Your task to perform on an android device: Go to display settings Image 0: 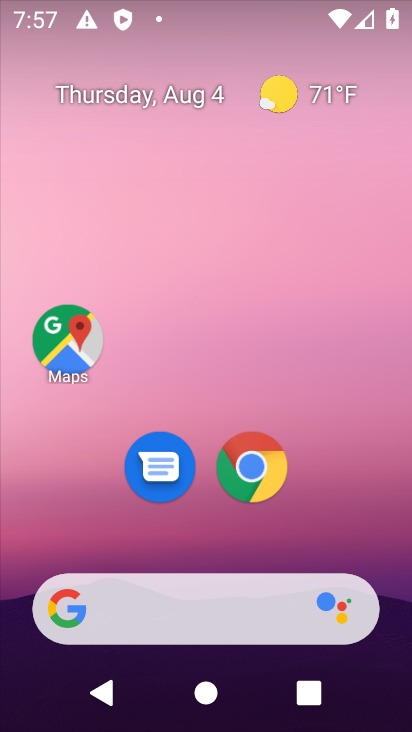
Step 0: drag from (288, 527) to (339, 47)
Your task to perform on an android device: Go to display settings Image 1: 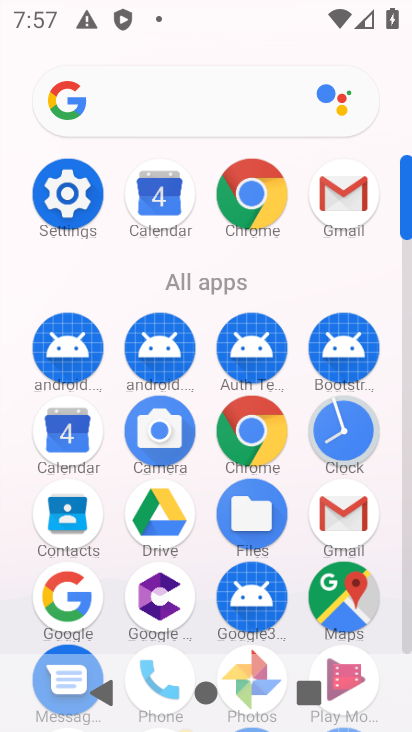
Step 1: click (58, 189)
Your task to perform on an android device: Go to display settings Image 2: 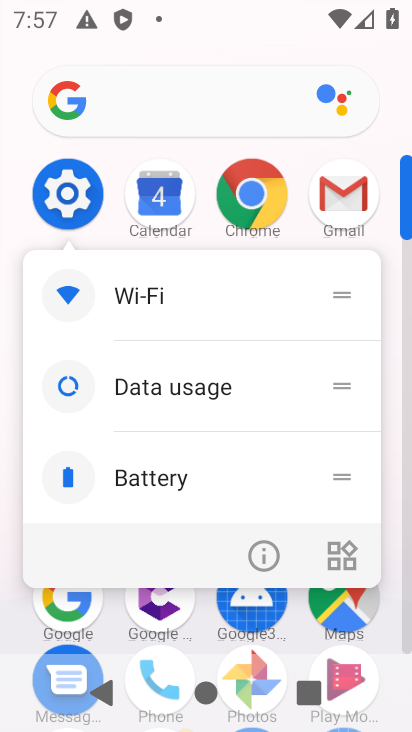
Step 2: click (63, 167)
Your task to perform on an android device: Go to display settings Image 3: 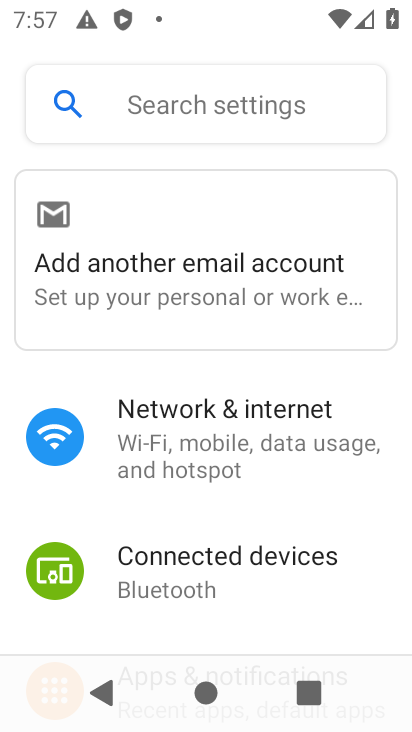
Step 3: drag from (220, 554) to (292, 104)
Your task to perform on an android device: Go to display settings Image 4: 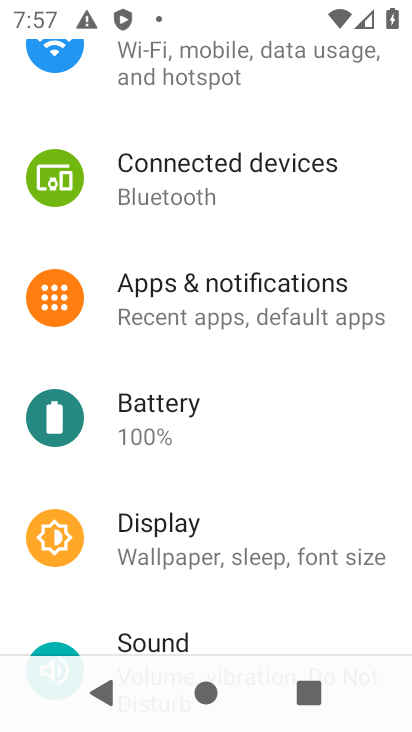
Step 4: click (155, 529)
Your task to perform on an android device: Go to display settings Image 5: 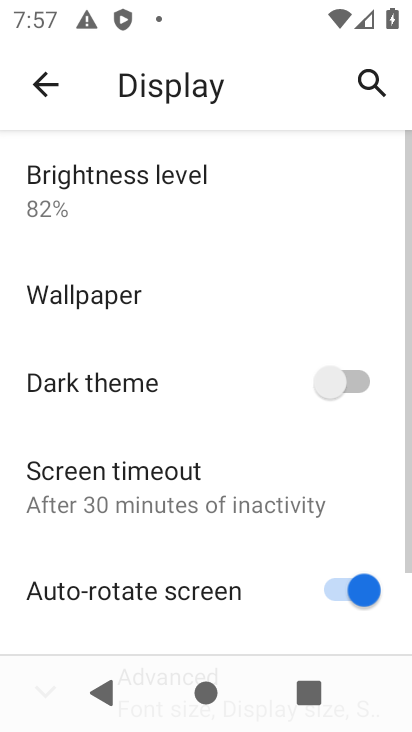
Step 5: task complete